Your task to perform on an android device: Set the phone to "Do not disturb". Image 0: 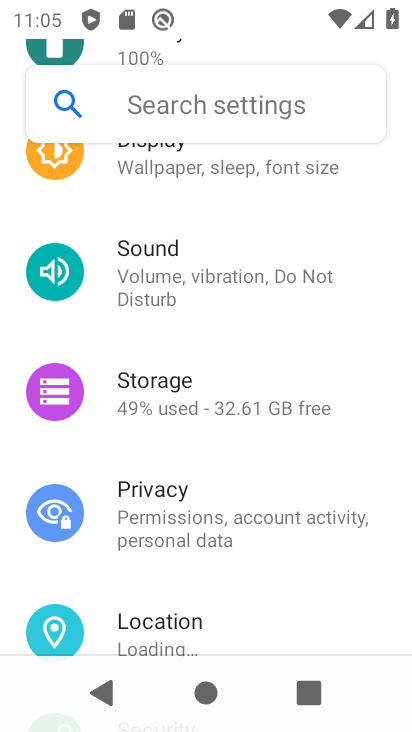
Step 0: press home button
Your task to perform on an android device: Set the phone to "Do not disturb". Image 1: 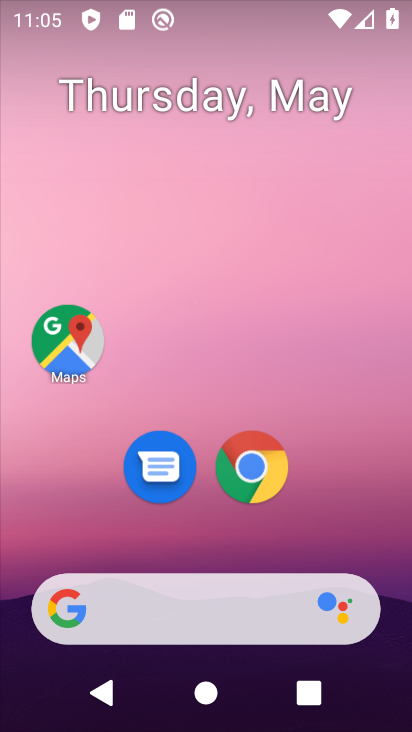
Step 1: drag from (260, 563) to (259, 153)
Your task to perform on an android device: Set the phone to "Do not disturb". Image 2: 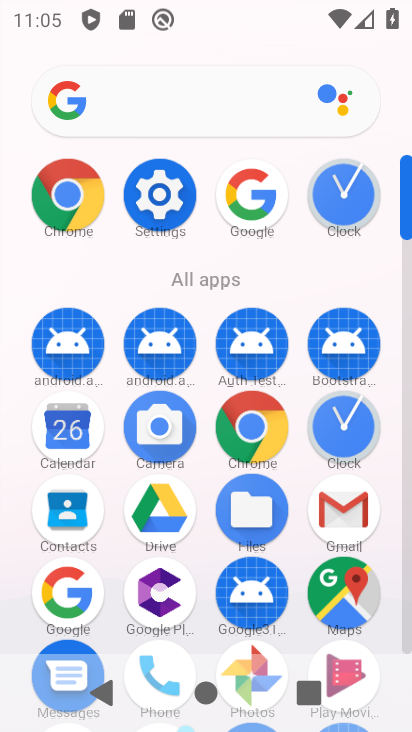
Step 2: drag from (200, 292) to (242, 41)
Your task to perform on an android device: Set the phone to "Do not disturb". Image 3: 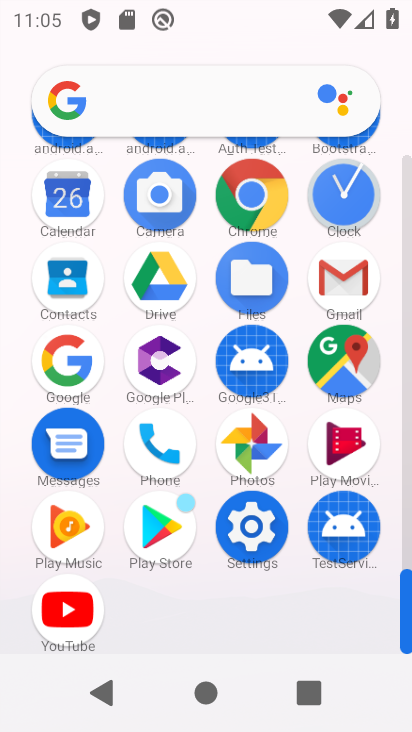
Step 3: click (267, 548)
Your task to perform on an android device: Set the phone to "Do not disturb". Image 4: 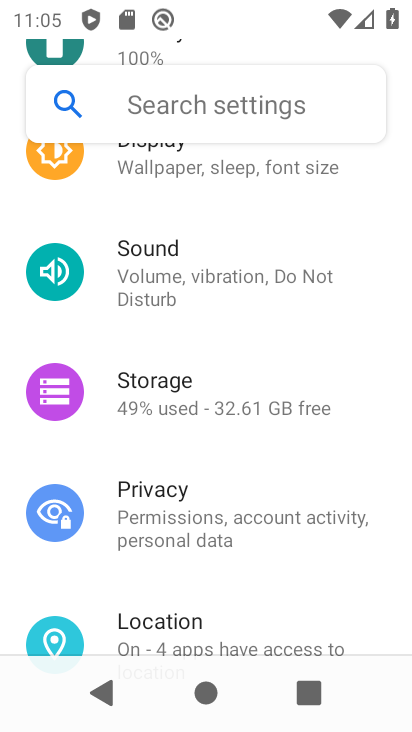
Step 4: drag from (191, 591) to (214, 373)
Your task to perform on an android device: Set the phone to "Do not disturb". Image 5: 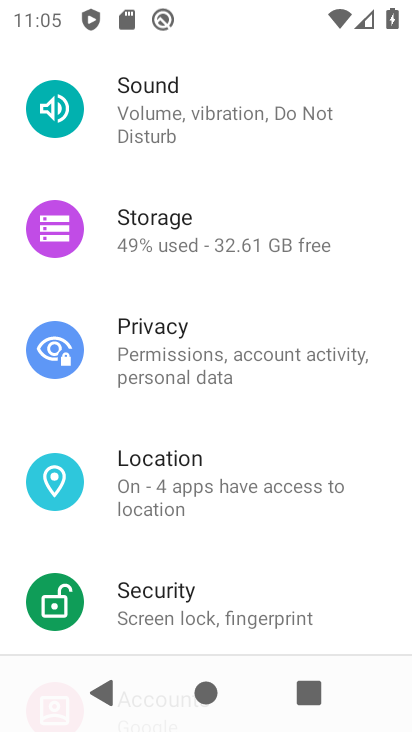
Step 5: drag from (217, 204) to (248, 329)
Your task to perform on an android device: Set the phone to "Do not disturb". Image 6: 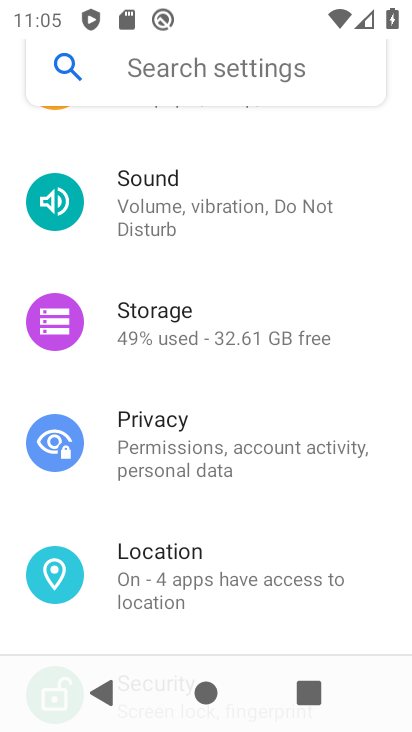
Step 6: click (216, 220)
Your task to perform on an android device: Set the phone to "Do not disturb". Image 7: 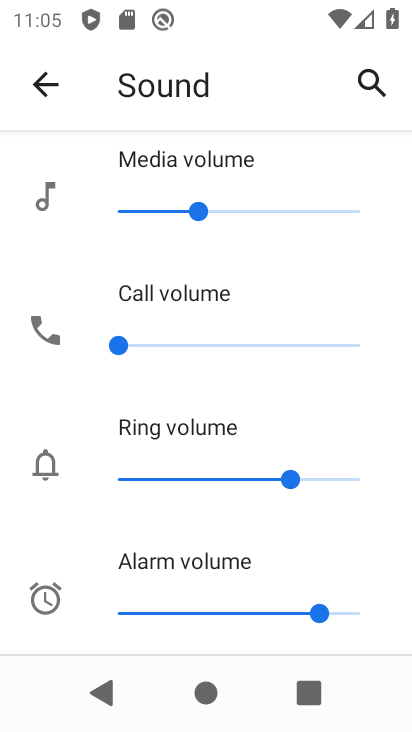
Step 7: drag from (209, 464) to (208, 13)
Your task to perform on an android device: Set the phone to "Do not disturb". Image 8: 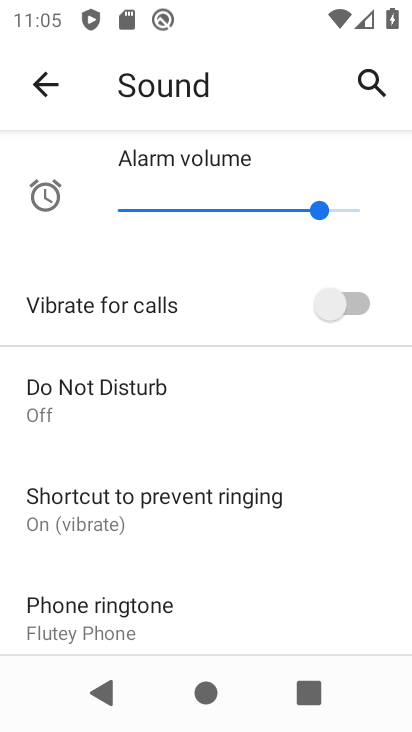
Step 8: click (163, 422)
Your task to perform on an android device: Set the phone to "Do not disturb". Image 9: 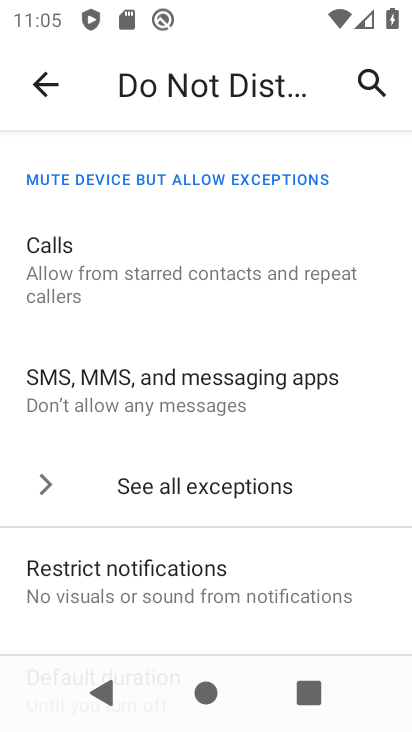
Step 9: drag from (212, 502) to (187, 147)
Your task to perform on an android device: Set the phone to "Do not disturb". Image 10: 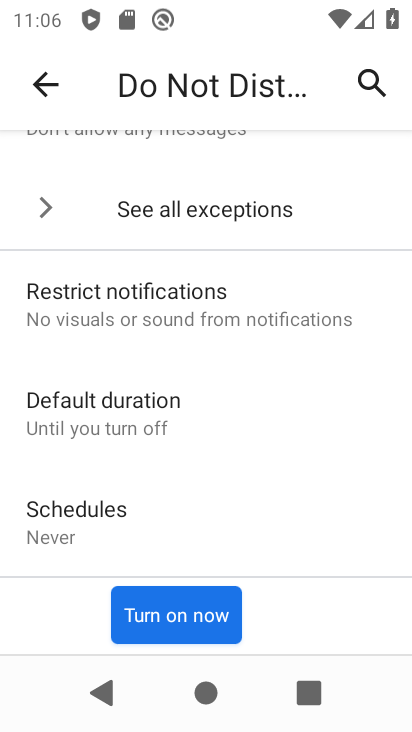
Step 10: click (220, 606)
Your task to perform on an android device: Set the phone to "Do not disturb". Image 11: 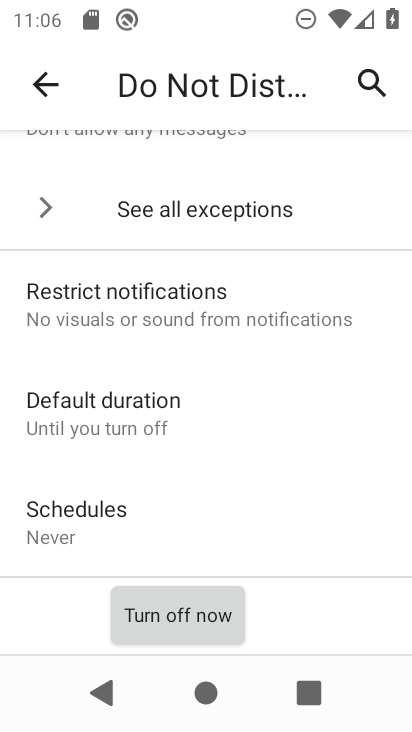
Step 11: task complete